Your task to perform on an android device: turn off data saver in the chrome app Image 0: 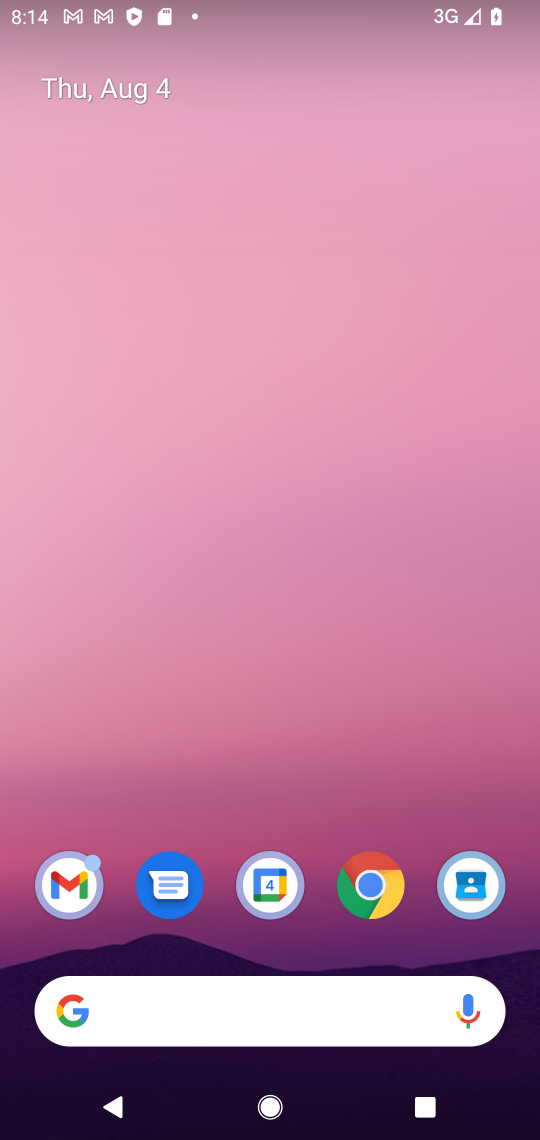
Step 0: press home button
Your task to perform on an android device: turn off data saver in the chrome app Image 1: 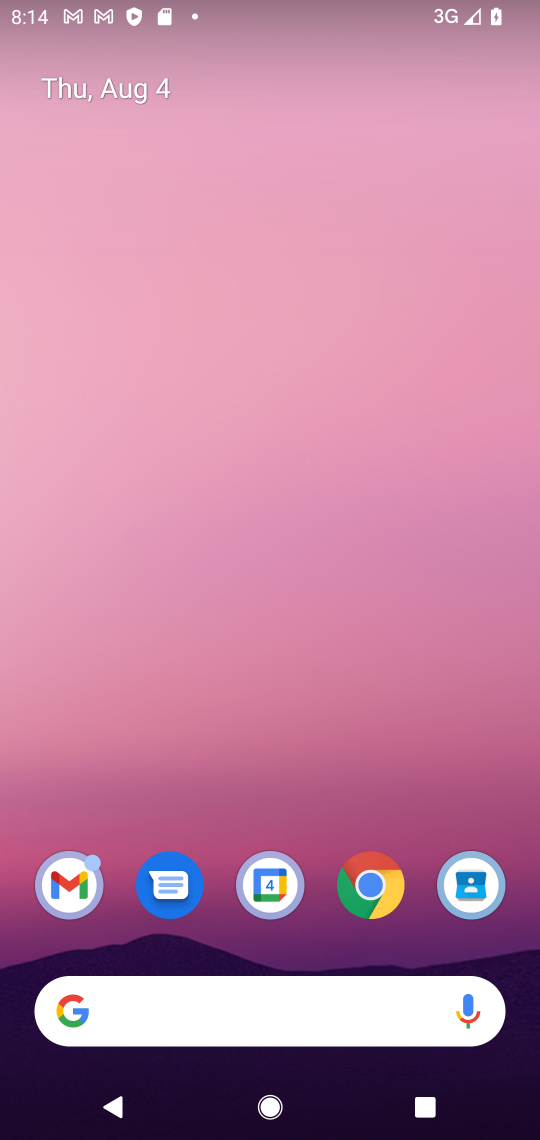
Step 1: drag from (344, 975) to (272, 7)
Your task to perform on an android device: turn off data saver in the chrome app Image 2: 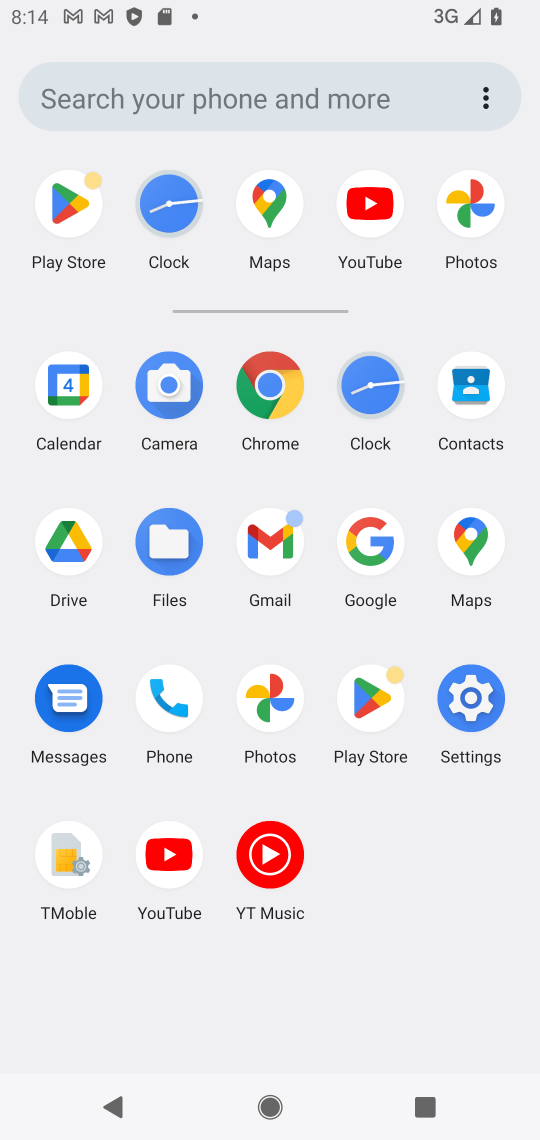
Step 2: click (269, 391)
Your task to perform on an android device: turn off data saver in the chrome app Image 3: 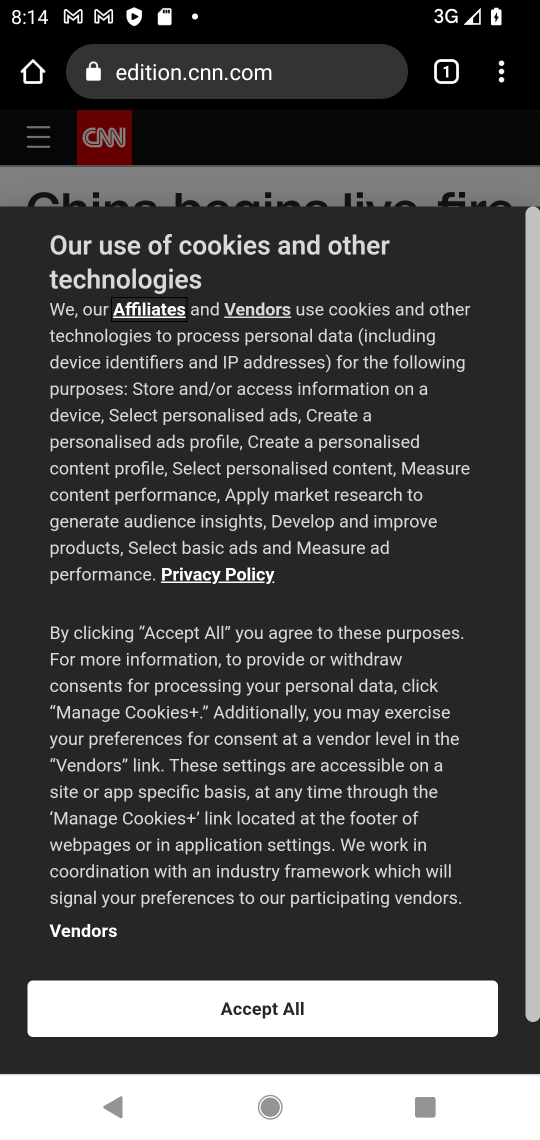
Step 3: drag from (506, 82) to (263, 994)
Your task to perform on an android device: turn off data saver in the chrome app Image 4: 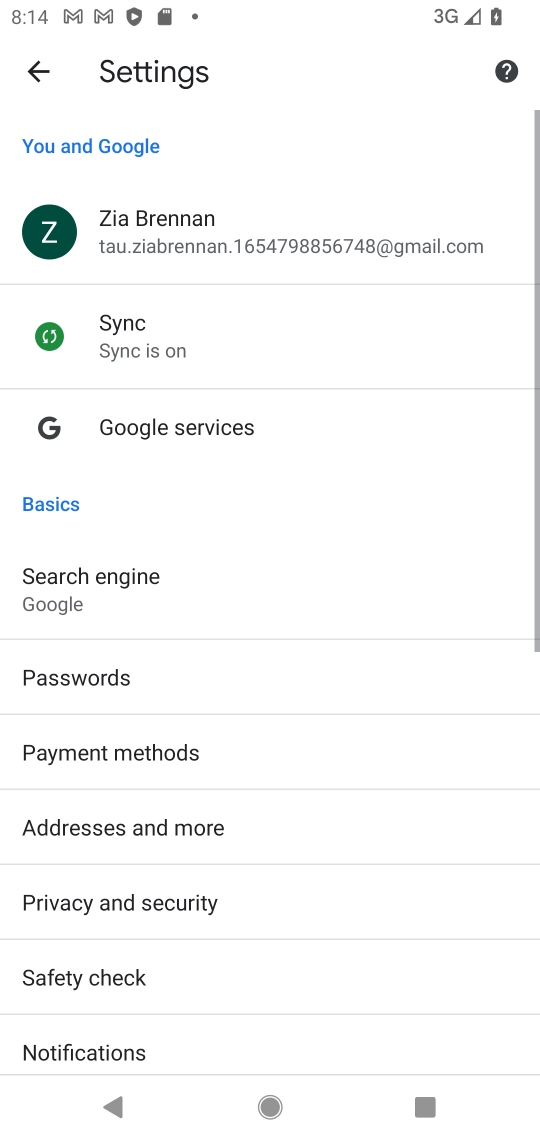
Step 4: drag from (219, 984) to (197, 59)
Your task to perform on an android device: turn off data saver in the chrome app Image 5: 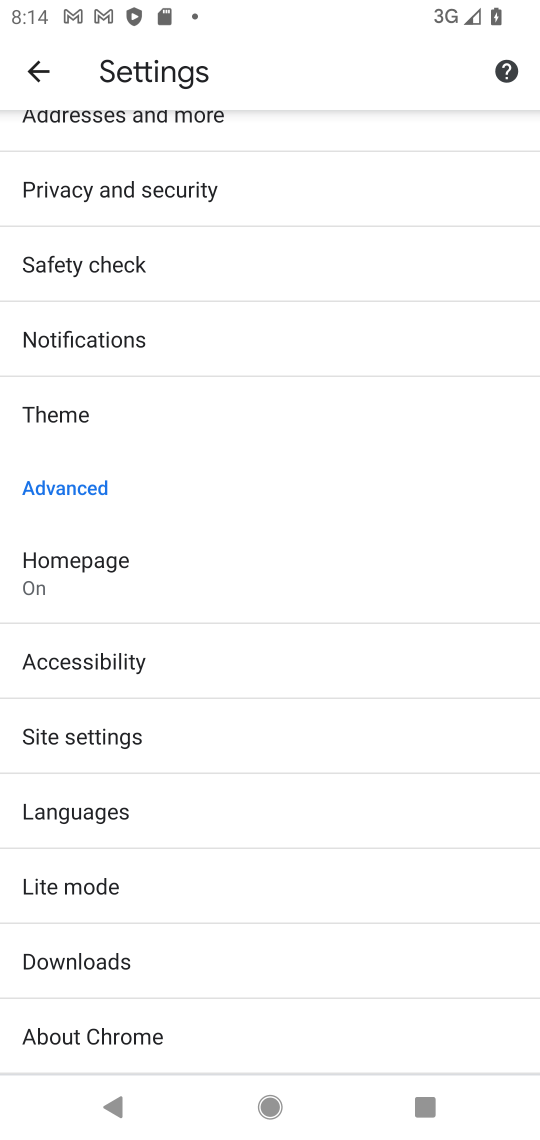
Step 5: click (31, 881)
Your task to perform on an android device: turn off data saver in the chrome app Image 6: 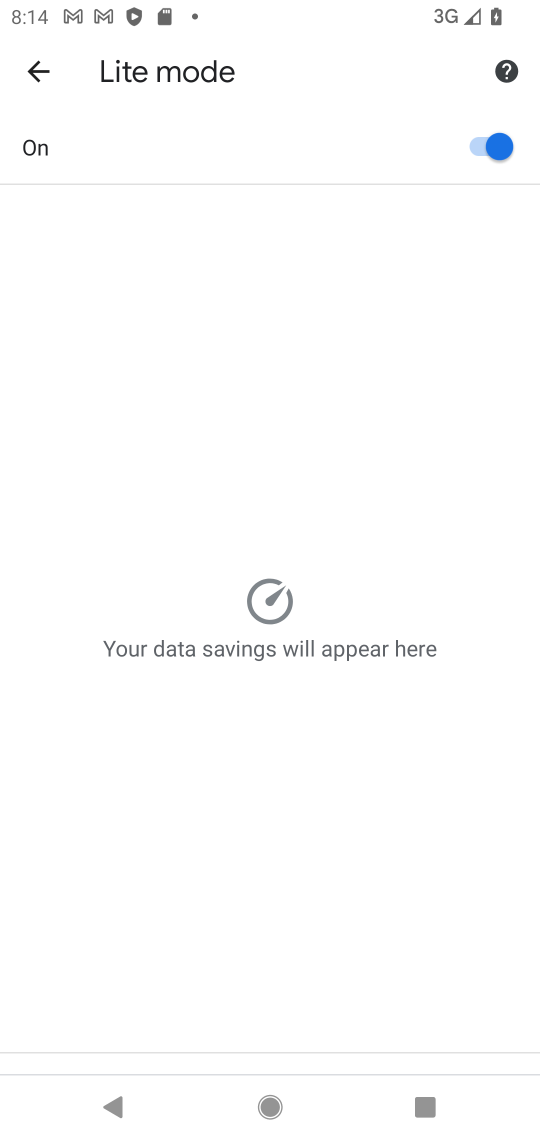
Step 6: click (276, 156)
Your task to perform on an android device: turn off data saver in the chrome app Image 7: 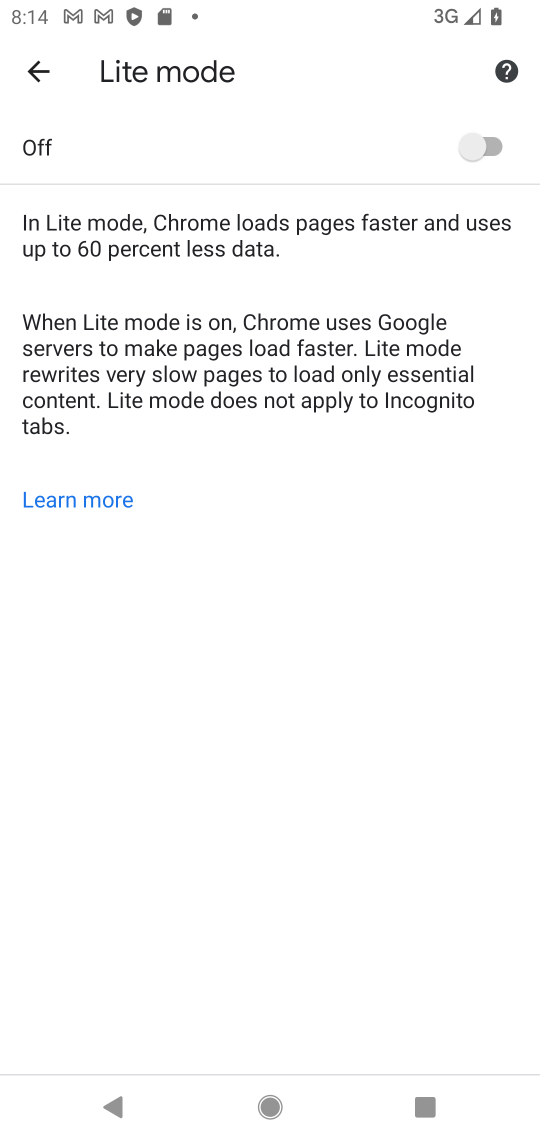
Step 7: task complete